Your task to perform on an android device: Open the stopwatch Image 0: 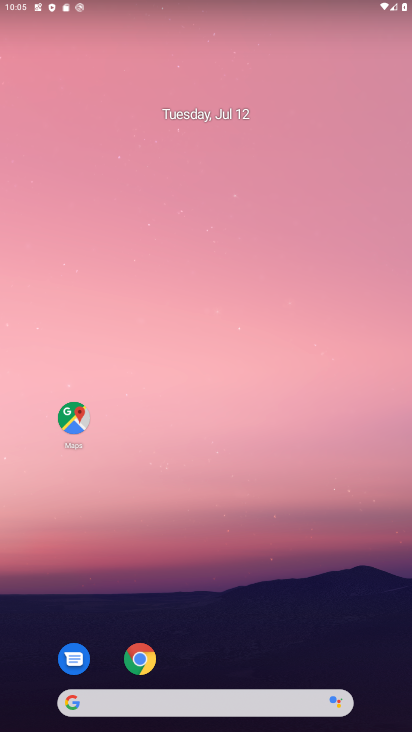
Step 0: drag from (383, 478) to (373, 133)
Your task to perform on an android device: Open the stopwatch Image 1: 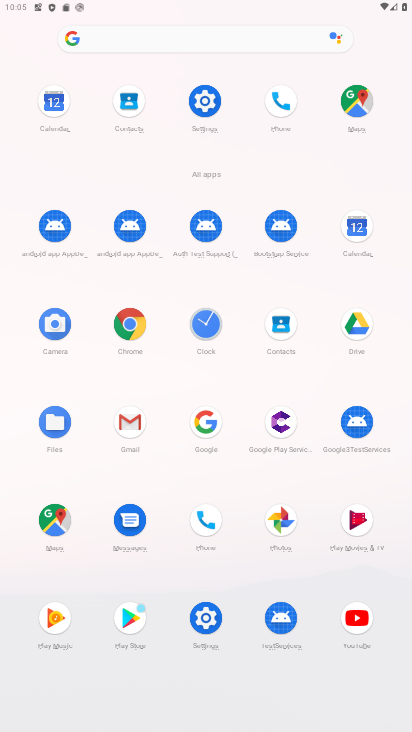
Step 1: click (203, 98)
Your task to perform on an android device: Open the stopwatch Image 2: 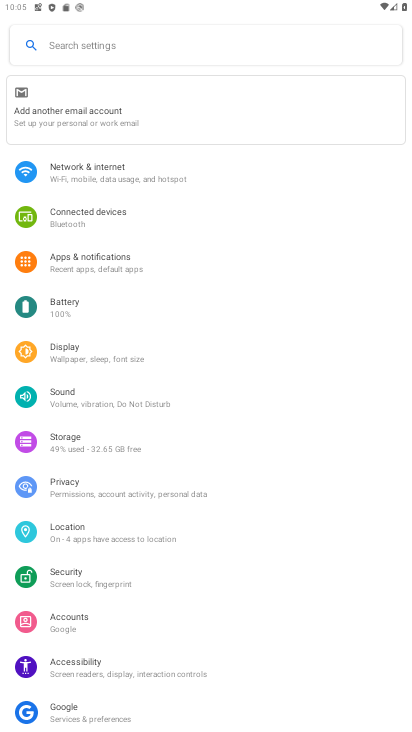
Step 2: task complete